Your task to perform on an android device: Open settings on Google Maps Image 0: 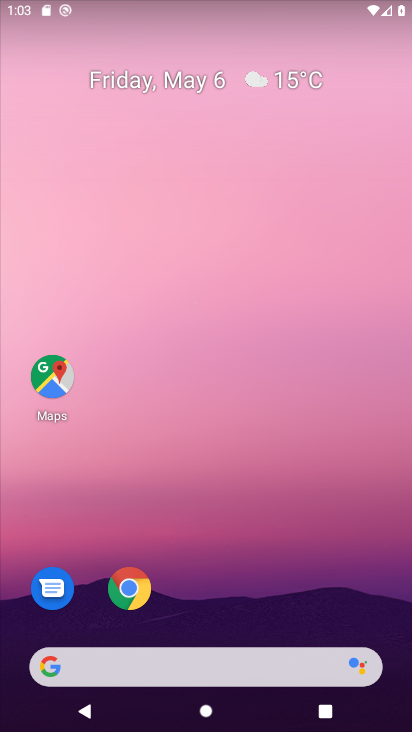
Step 0: drag from (196, 626) to (216, 75)
Your task to perform on an android device: Open settings on Google Maps Image 1: 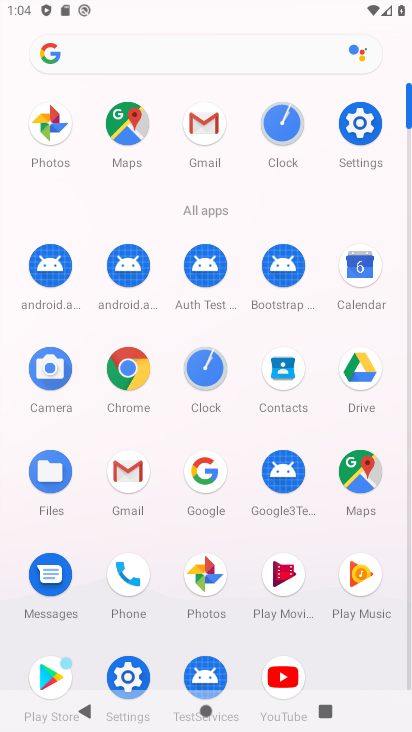
Step 1: click (360, 472)
Your task to perform on an android device: Open settings on Google Maps Image 2: 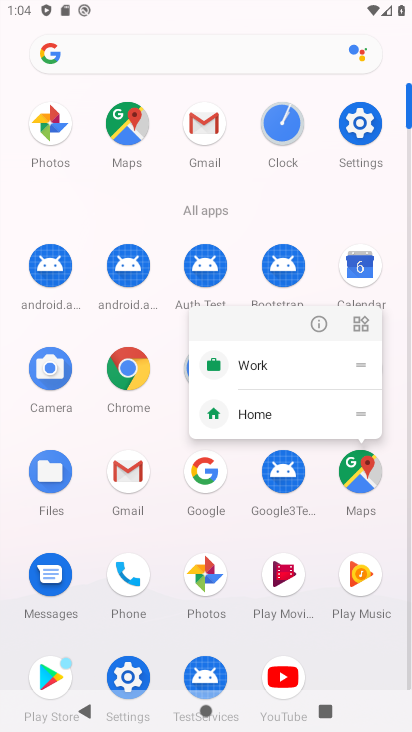
Step 2: click (314, 326)
Your task to perform on an android device: Open settings on Google Maps Image 3: 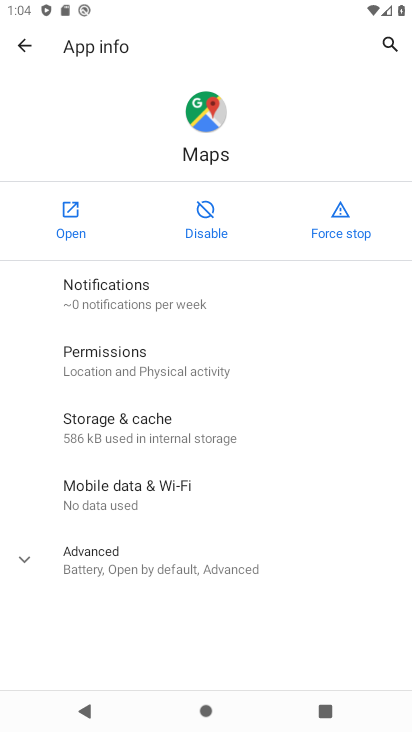
Step 3: click (64, 203)
Your task to perform on an android device: Open settings on Google Maps Image 4: 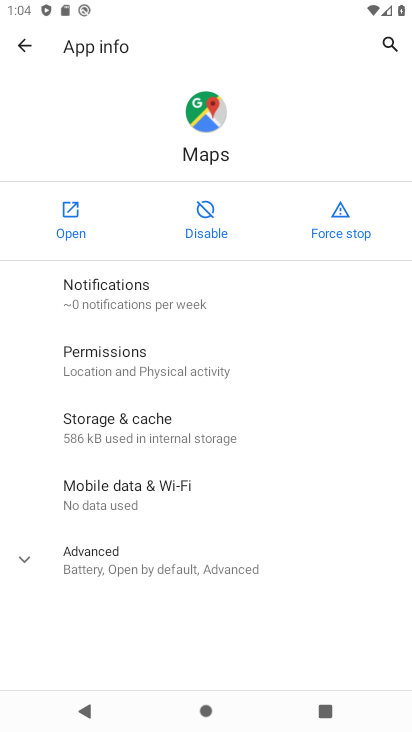
Step 4: click (64, 203)
Your task to perform on an android device: Open settings on Google Maps Image 5: 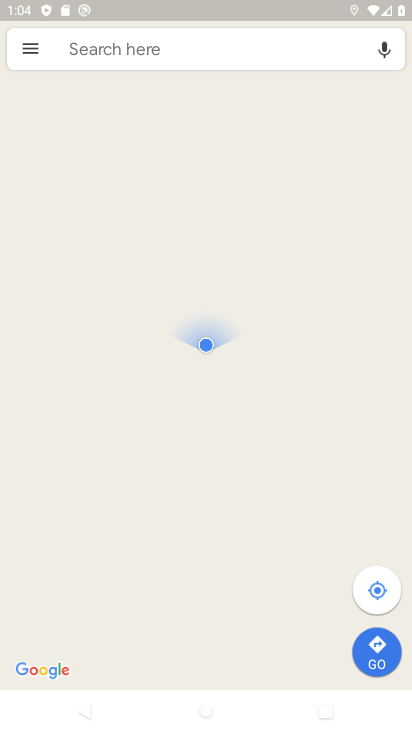
Step 5: drag from (225, 679) to (263, 317)
Your task to perform on an android device: Open settings on Google Maps Image 6: 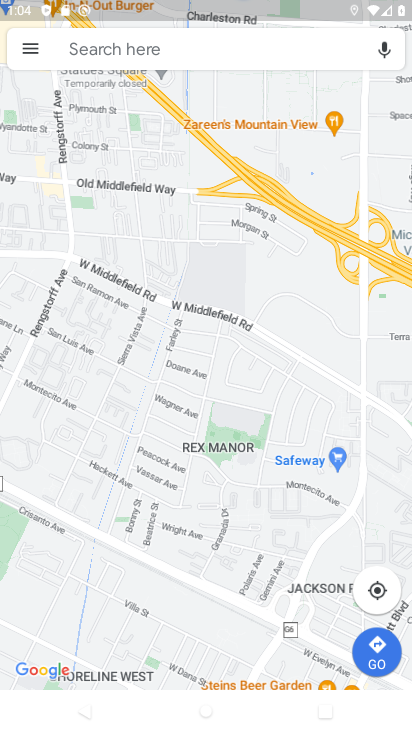
Step 6: click (30, 50)
Your task to perform on an android device: Open settings on Google Maps Image 7: 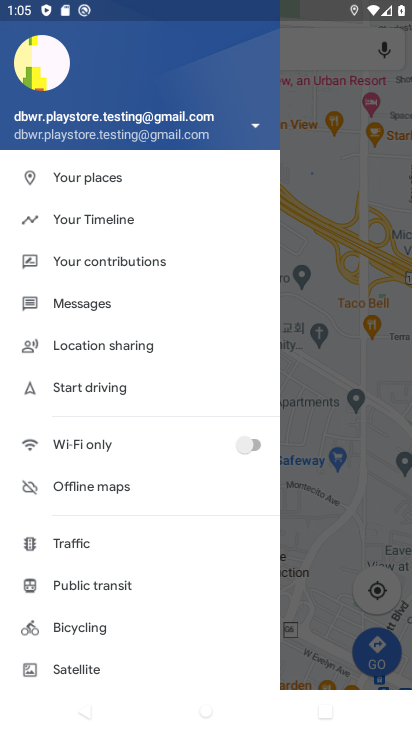
Step 7: drag from (91, 648) to (268, 114)
Your task to perform on an android device: Open settings on Google Maps Image 8: 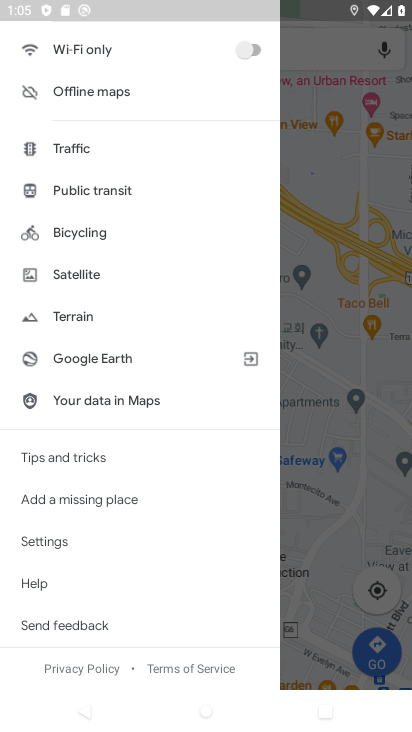
Step 8: click (65, 548)
Your task to perform on an android device: Open settings on Google Maps Image 9: 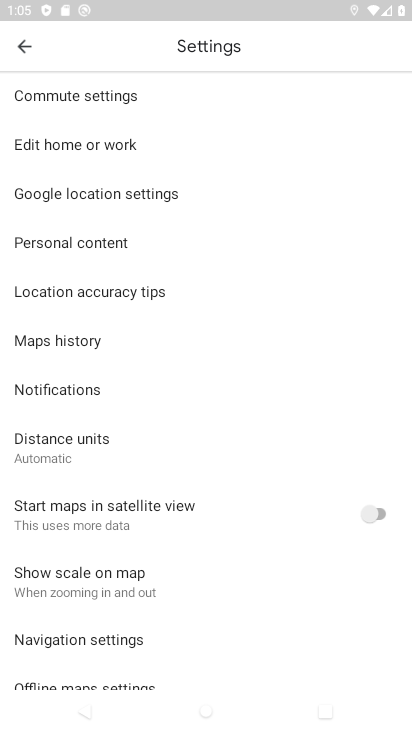
Step 9: task complete